Your task to perform on an android device: Open Reddit.com Image 0: 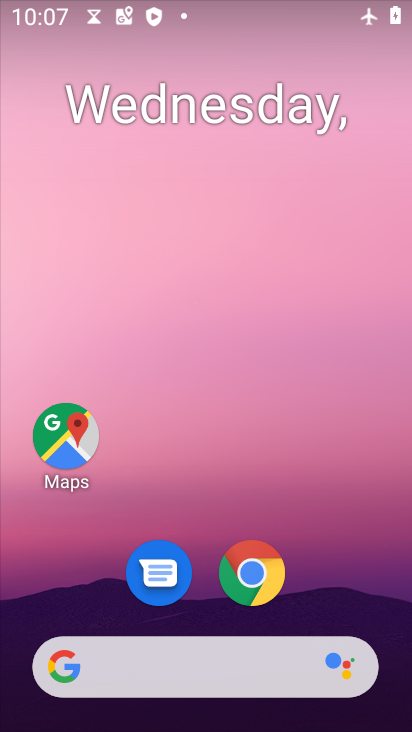
Step 0: click (259, 573)
Your task to perform on an android device: Open Reddit.com Image 1: 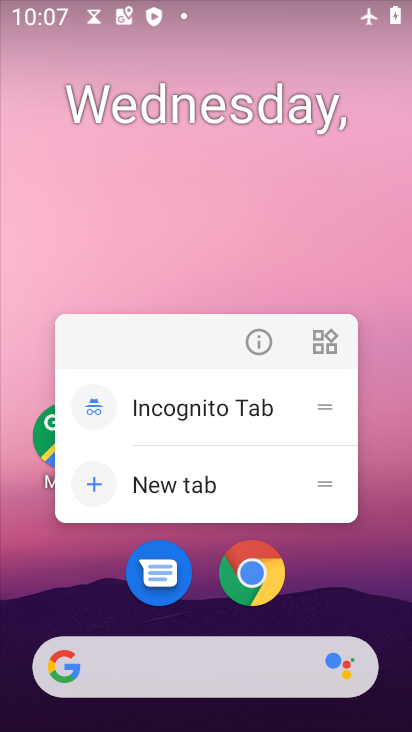
Step 1: click (259, 572)
Your task to perform on an android device: Open Reddit.com Image 2: 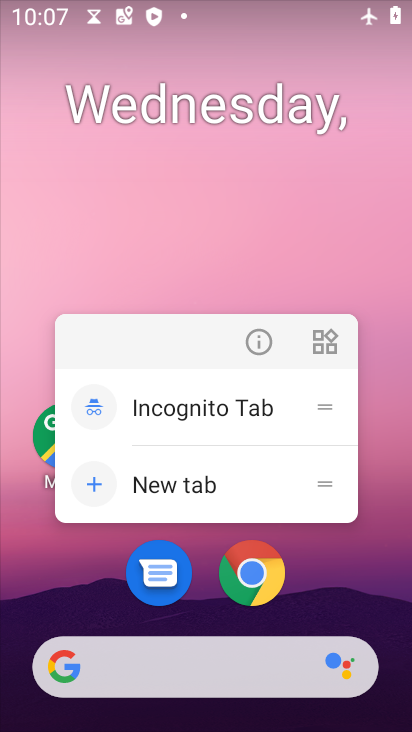
Step 2: click (260, 571)
Your task to perform on an android device: Open Reddit.com Image 3: 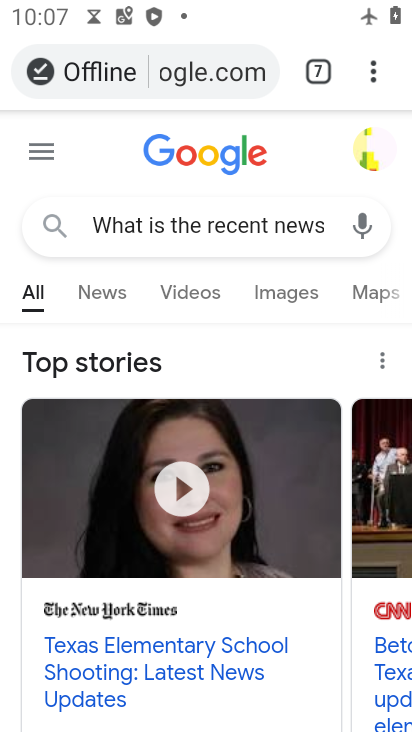
Step 3: click (255, 566)
Your task to perform on an android device: Open Reddit.com Image 4: 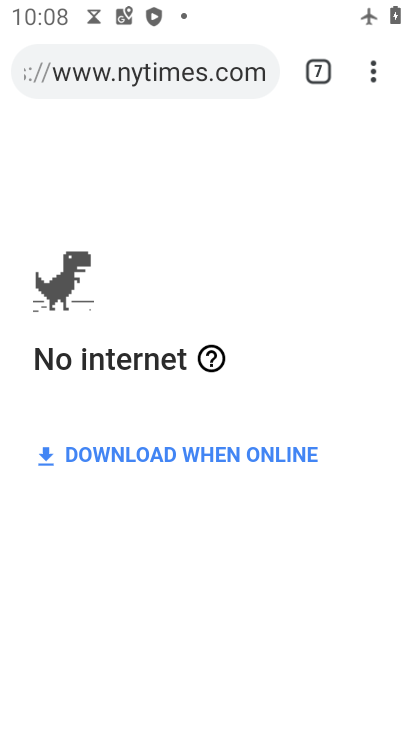
Step 4: click (376, 66)
Your task to perform on an android device: Open Reddit.com Image 5: 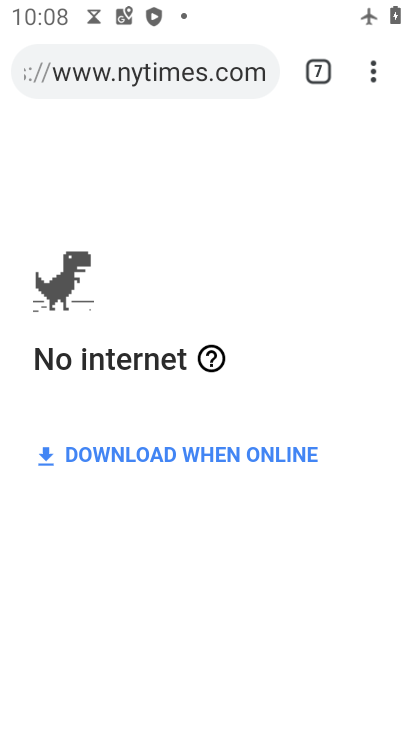
Step 5: click (371, 58)
Your task to perform on an android device: Open Reddit.com Image 6: 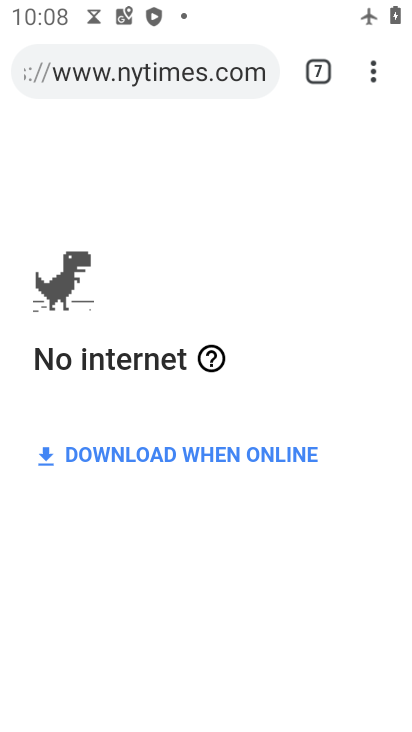
Step 6: click (369, 61)
Your task to perform on an android device: Open Reddit.com Image 7: 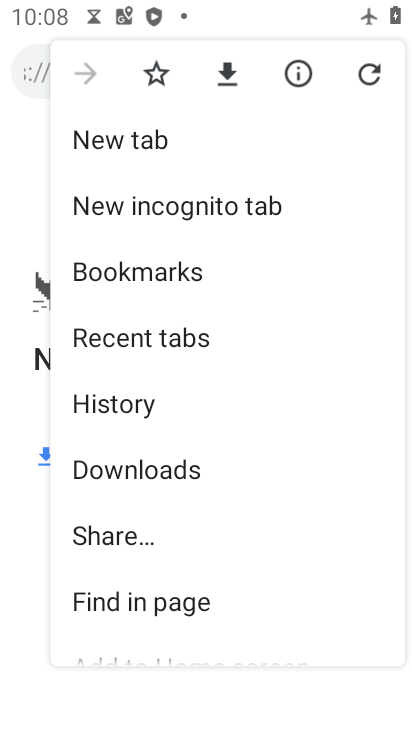
Step 7: click (176, 133)
Your task to perform on an android device: Open Reddit.com Image 8: 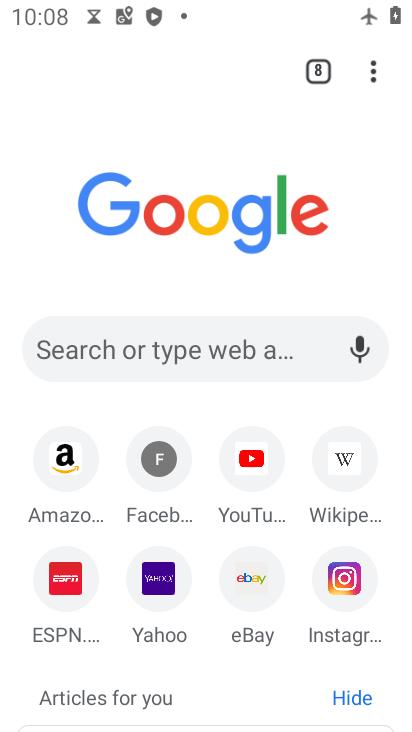
Step 8: click (178, 341)
Your task to perform on an android device: Open Reddit.com Image 9: 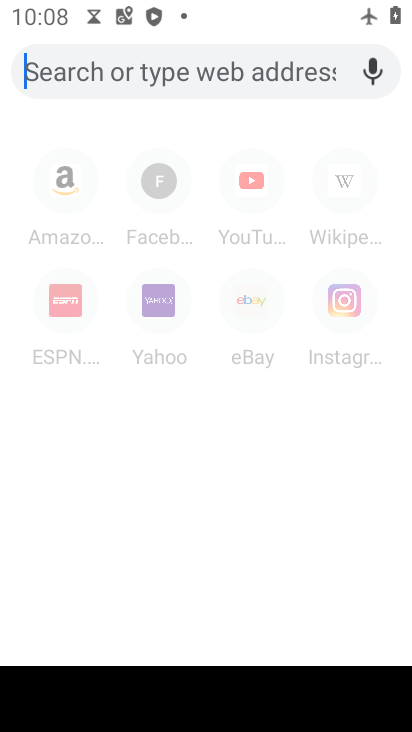
Step 9: type " Reddit.com"
Your task to perform on an android device: Open Reddit.com Image 10: 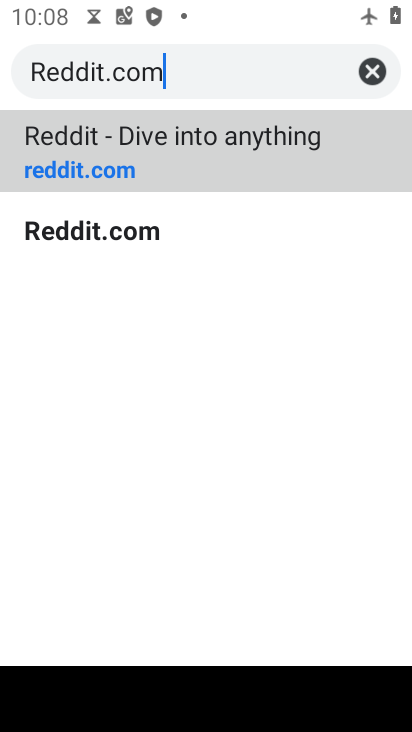
Step 10: click (205, 133)
Your task to perform on an android device: Open Reddit.com Image 11: 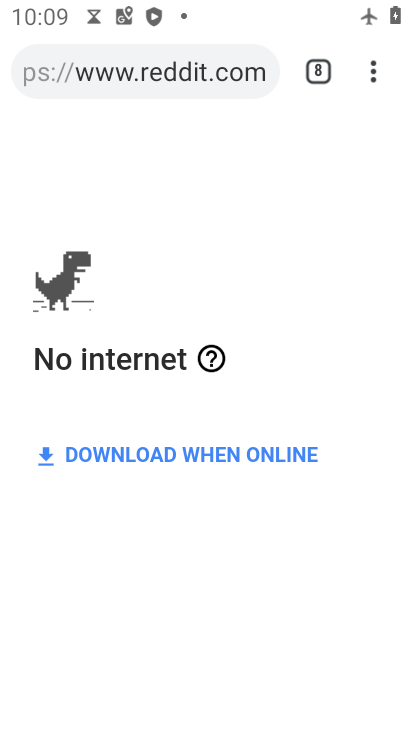
Step 11: task complete